Your task to perform on an android device: open app "Etsy: Buy & Sell Unique Items" (install if not already installed) and enter user name: "camp@inbox.com" and password: "unrelated" Image 0: 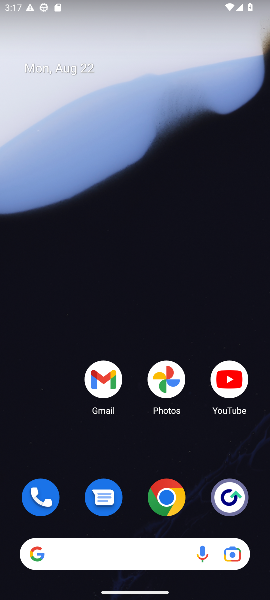
Step 0: drag from (175, 438) to (217, 54)
Your task to perform on an android device: open app "Etsy: Buy & Sell Unique Items" (install if not already installed) and enter user name: "camp@inbox.com" and password: "unrelated" Image 1: 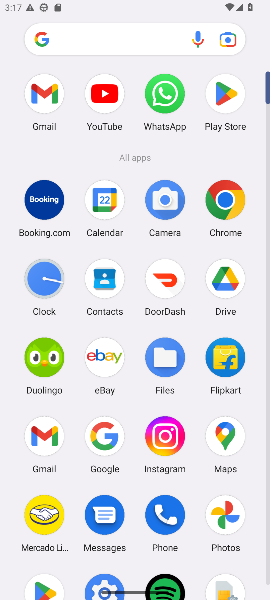
Step 1: click (220, 99)
Your task to perform on an android device: open app "Etsy: Buy & Sell Unique Items" (install if not already installed) and enter user name: "camp@inbox.com" and password: "unrelated" Image 2: 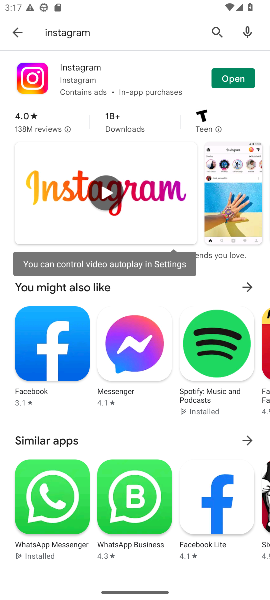
Step 2: click (219, 38)
Your task to perform on an android device: open app "Etsy: Buy & Sell Unique Items" (install if not already installed) and enter user name: "camp@inbox.com" and password: "unrelated" Image 3: 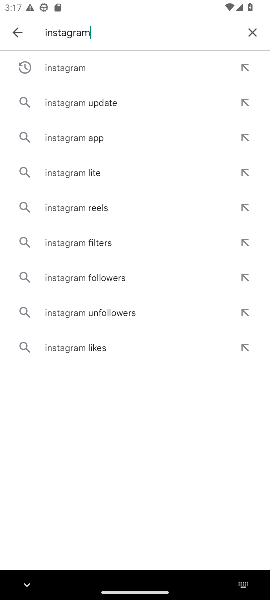
Step 3: click (251, 31)
Your task to perform on an android device: open app "Etsy: Buy & Sell Unique Items" (install if not already installed) and enter user name: "camp@inbox.com" and password: "unrelated" Image 4: 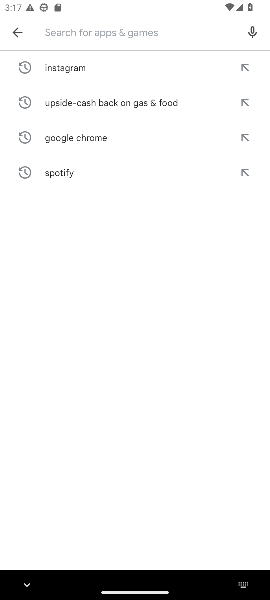
Step 4: type "Etsy: Buy & Sell Unique Items"
Your task to perform on an android device: open app "Etsy: Buy & Sell Unique Items" (install if not already installed) and enter user name: "camp@inbox.com" and password: "unrelated" Image 5: 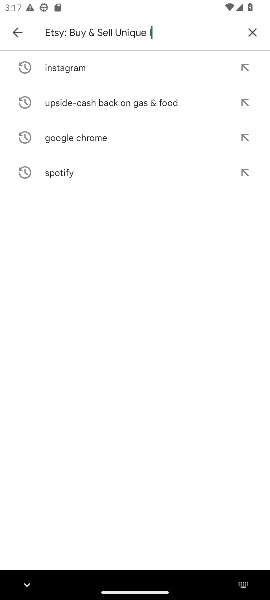
Step 5: type ""
Your task to perform on an android device: open app "Etsy: Buy & Sell Unique Items" (install if not already installed) and enter user name: "camp@inbox.com" and password: "unrelated" Image 6: 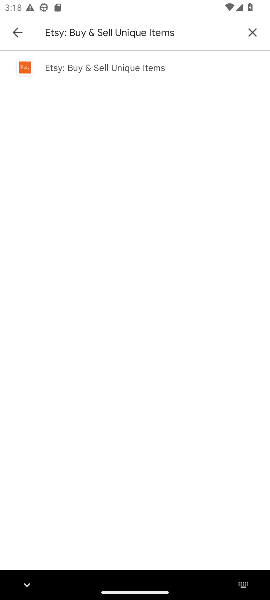
Step 6: click (138, 78)
Your task to perform on an android device: open app "Etsy: Buy & Sell Unique Items" (install if not already installed) and enter user name: "camp@inbox.com" and password: "unrelated" Image 7: 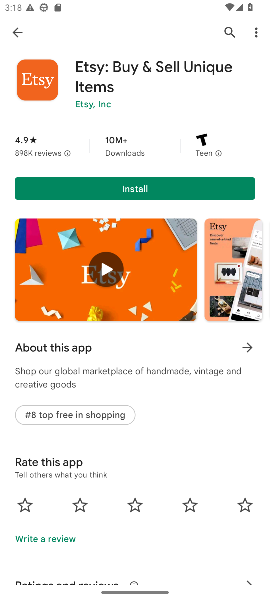
Step 7: click (145, 187)
Your task to perform on an android device: open app "Etsy: Buy & Sell Unique Items" (install if not already installed) and enter user name: "camp@inbox.com" and password: "unrelated" Image 8: 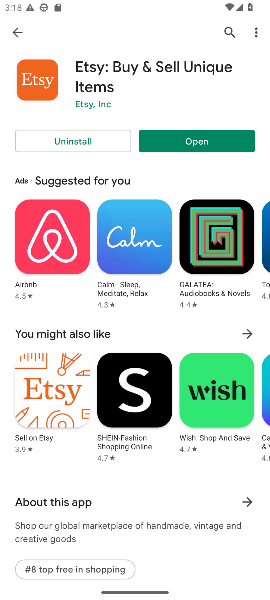
Step 8: click (180, 143)
Your task to perform on an android device: open app "Etsy: Buy & Sell Unique Items" (install if not already installed) and enter user name: "camp@inbox.com" and password: "unrelated" Image 9: 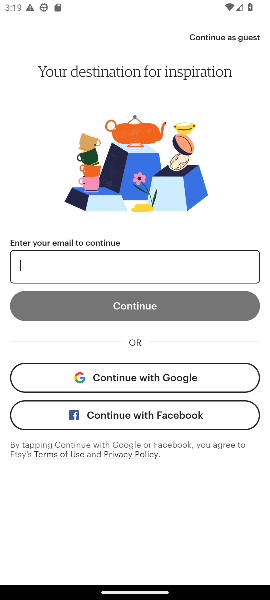
Step 9: task complete